Your task to perform on an android device: find snoozed emails in the gmail app Image 0: 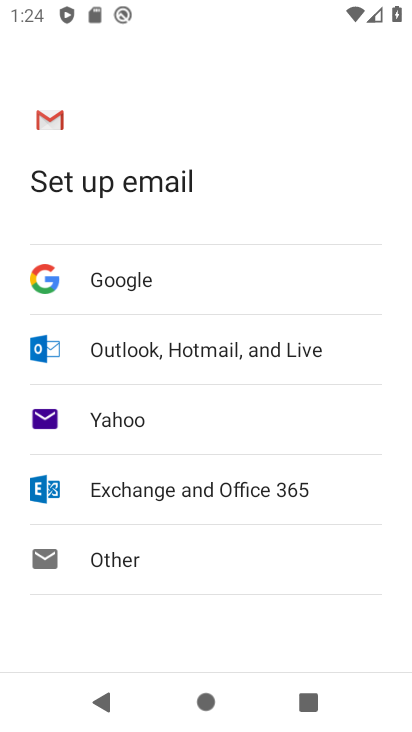
Step 0: press home button
Your task to perform on an android device: find snoozed emails in the gmail app Image 1: 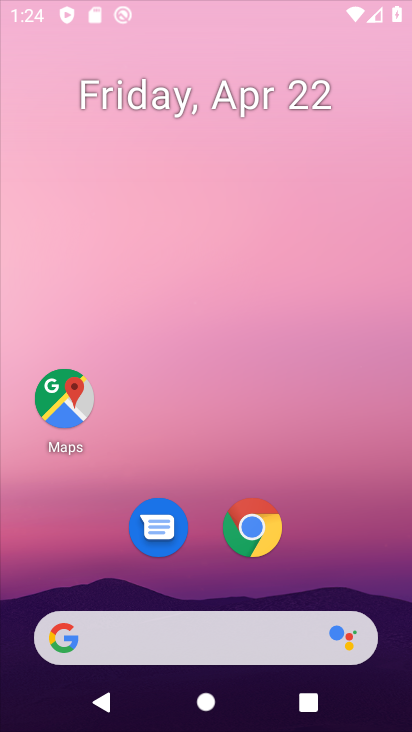
Step 1: drag from (349, 551) to (338, 47)
Your task to perform on an android device: find snoozed emails in the gmail app Image 2: 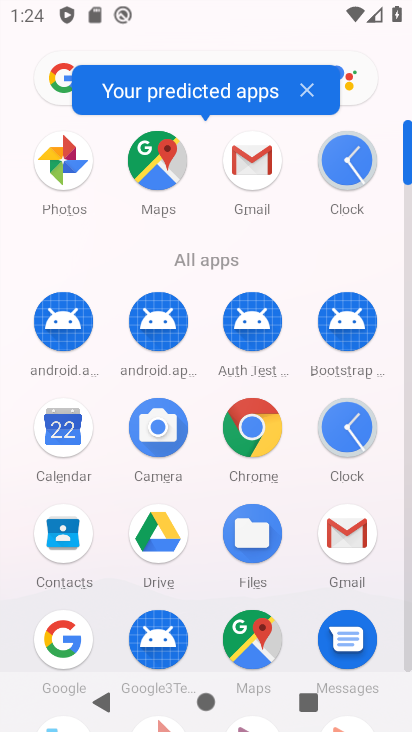
Step 2: click (349, 552)
Your task to perform on an android device: find snoozed emails in the gmail app Image 3: 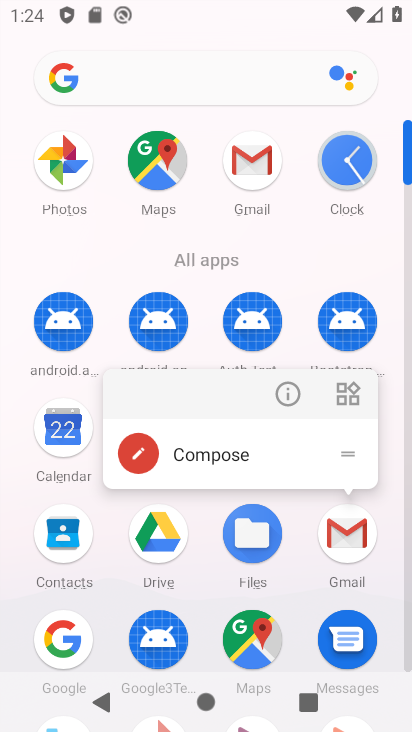
Step 3: click (349, 552)
Your task to perform on an android device: find snoozed emails in the gmail app Image 4: 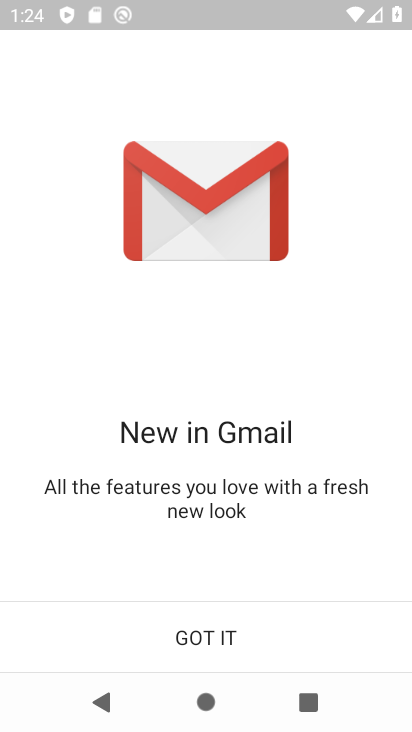
Step 4: click (294, 629)
Your task to perform on an android device: find snoozed emails in the gmail app Image 5: 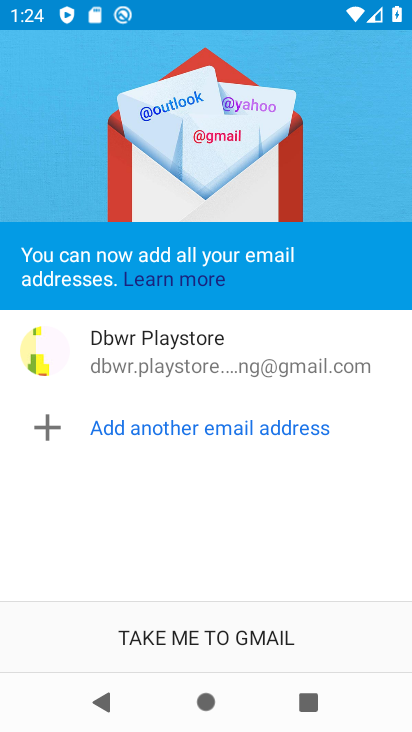
Step 5: click (294, 629)
Your task to perform on an android device: find snoozed emails in the gmail app Image 6: 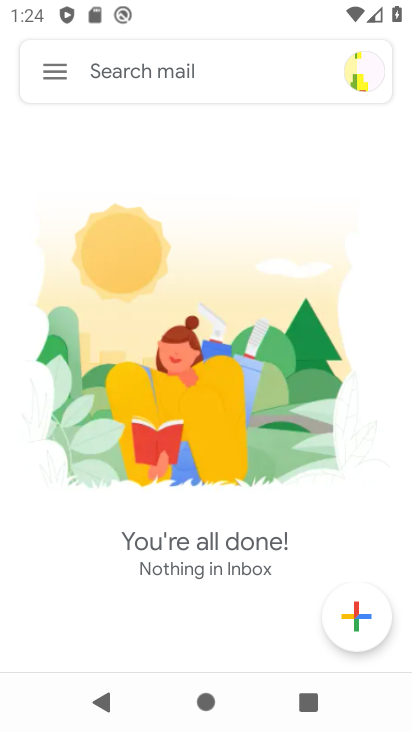
Step 6: click (61, 68)
Your task to perform on an android device: find snoozed emails in the gmail app Image 7: 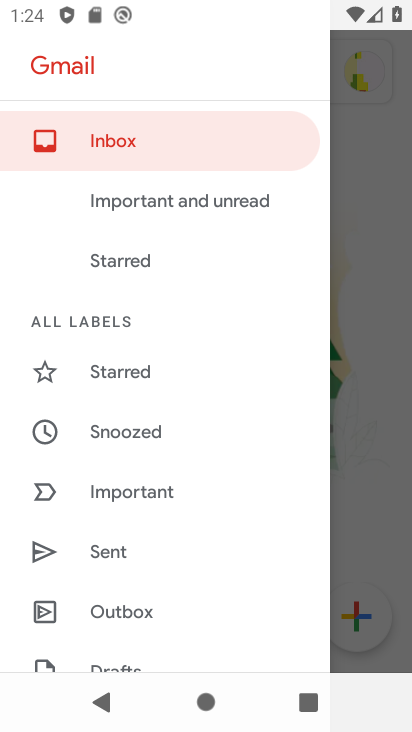
Step 7: click (166, 434)
Your task to perform on an android device: find snoozed emails in the gmail app Image 8: 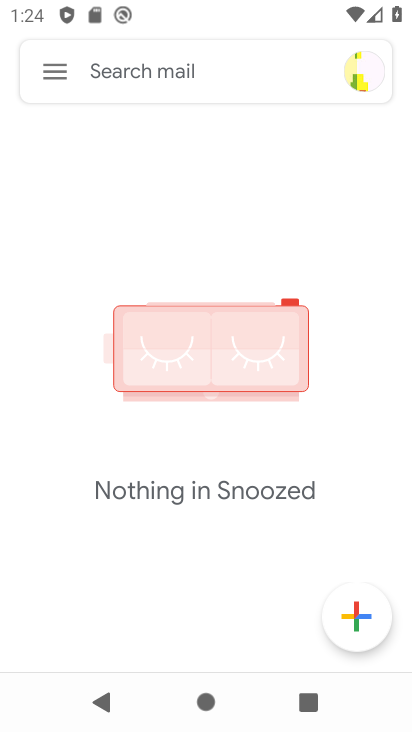
Step 8: task complete